Your task to perform on an android device: change notification settings in the gmail app Image 0: 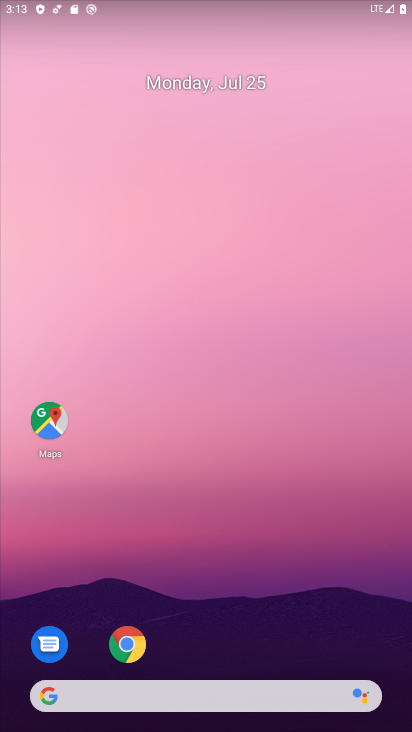
Step 0: drag from (229, 653) to (183, 149)
Your task to perform on an android device: change notification settings in the gmail app Image 1: 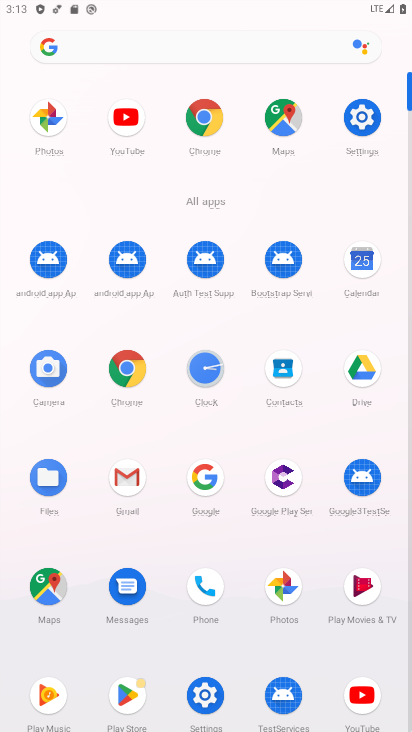
Step 1: click (135, 473)
Your task to perform on an android device: change notification settings in the gmail app Image 2: 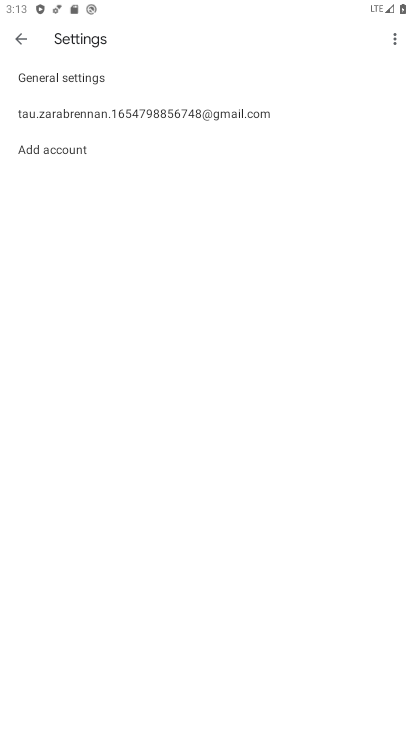
Step 2: click (204, 130)
Your task to perform on an android device: change notification settings in the gmail app Image 3: 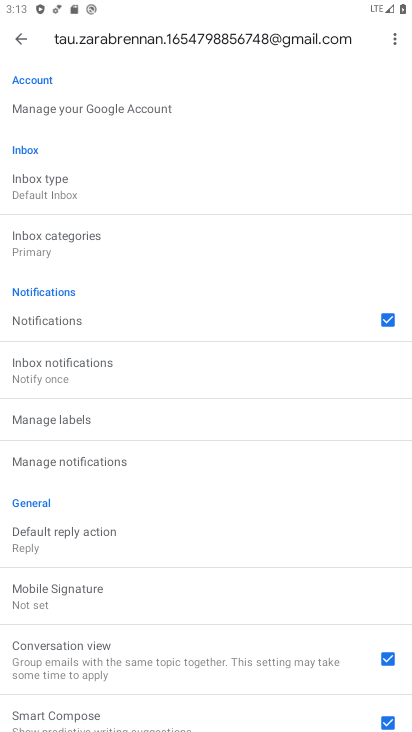
Step 3: click (202, 465)
Your task to perform on an android device: change notification settings in the gmail app Image 4: 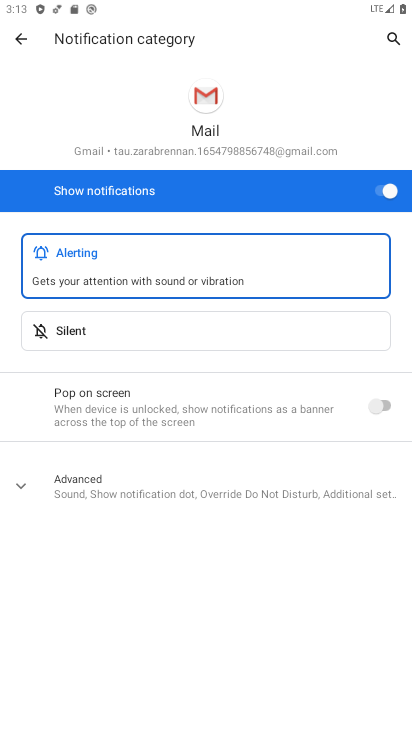
Step 4: click (313, 316)
Your task to perform on an android device: change notification settings in the gmail app Image 5: 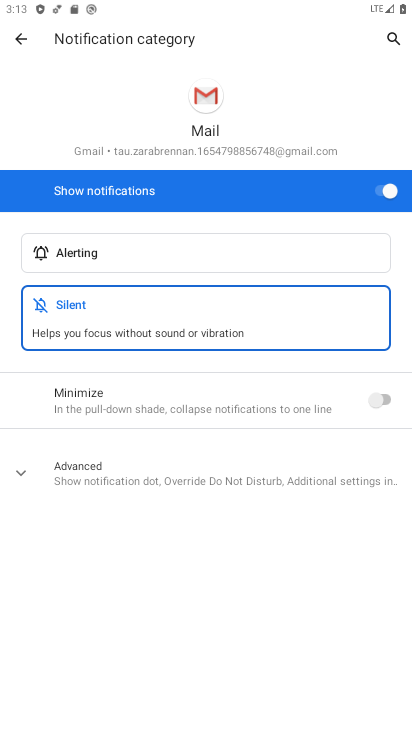
Step 5: click (378, 386)
Your task to perform on an android device: change notification settings in the gmail app Image 6: 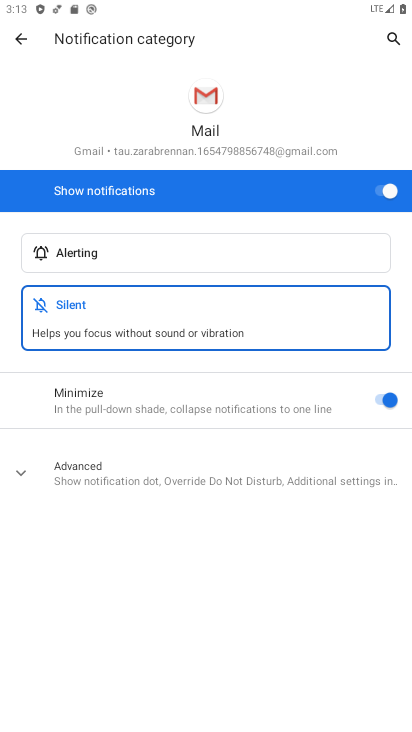
Step 6: task complete